Your task to perform on an android device: open wifi settings Image 0: 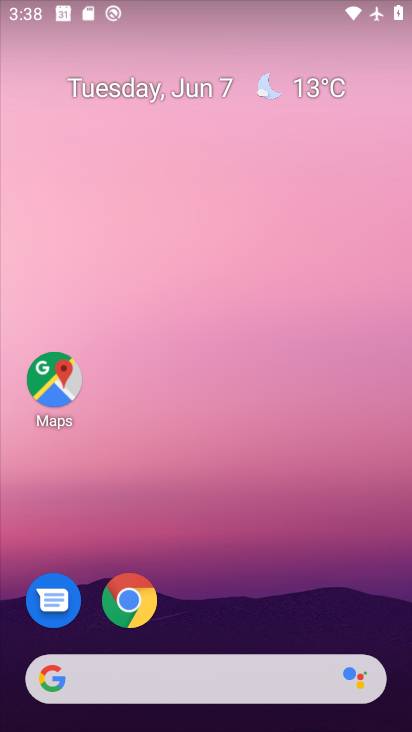
Step 0: drag from (319, 571) to (237, 225)
Your task to perform on an android device: open wifi settings Image 1: 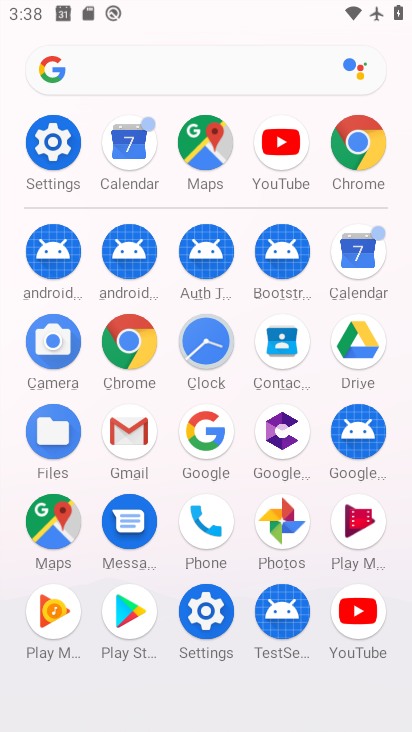
Step 1: click (63, 149)
Your task to perform on an android device: open wifi settings Image 2: 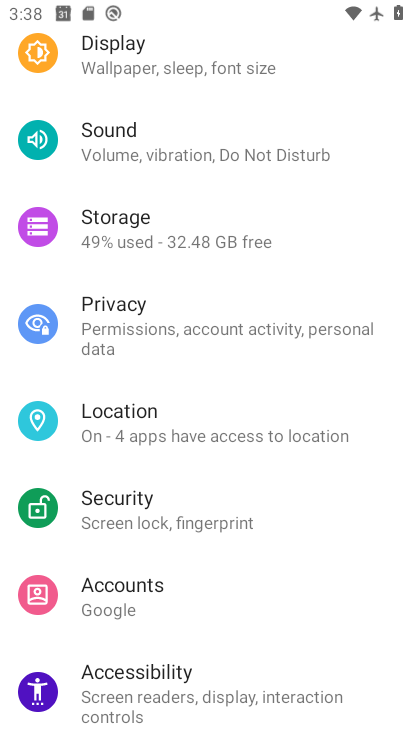
Step 2: drag from (244, 106) to (240, 570)
Your task to perform on an android device: open wifi settings Image 3: 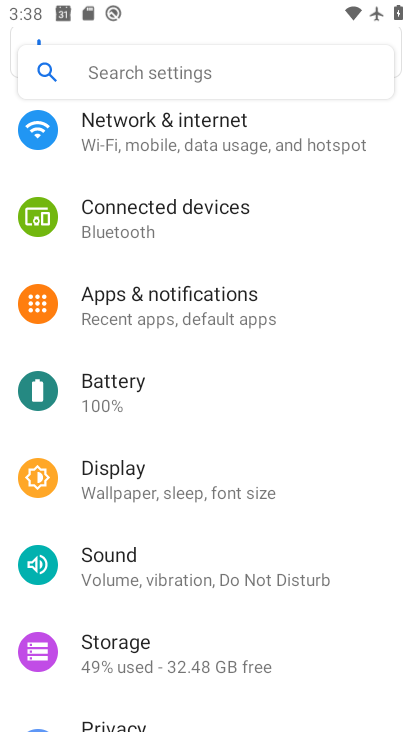
Step 3: click (162, 147)
Your task to perform on an android device: open wifi settings Image 4: 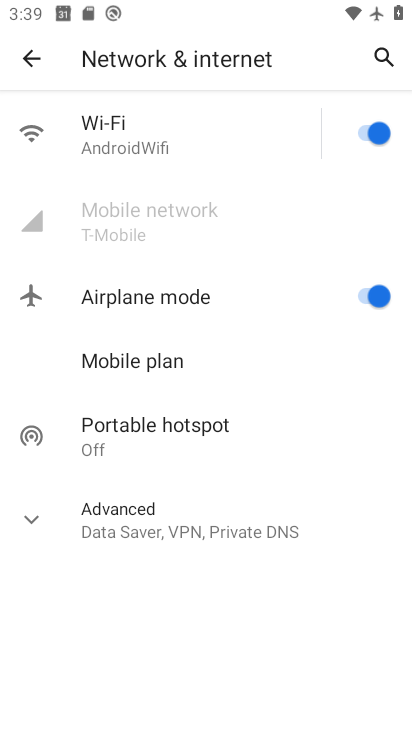
Step 4: click (163, 146)
Your task to perform on an android device: open wifi settings Image 5: 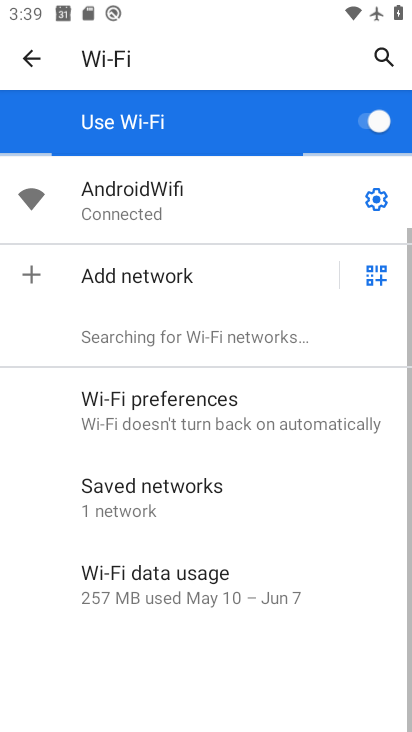
Step 5: click (376, 197)
Your task to perform on an android device: open wifi settings Image 6: 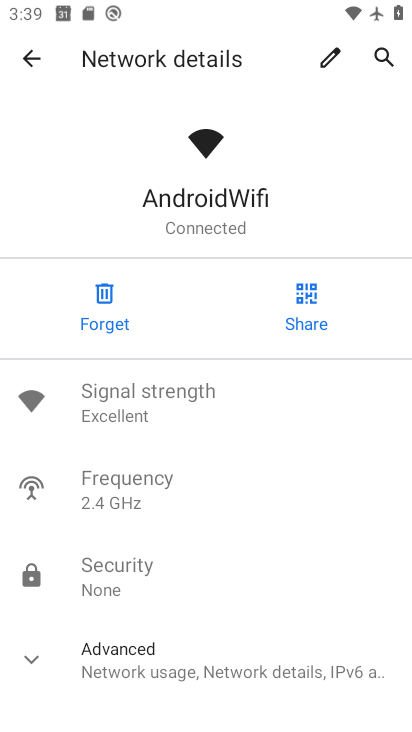
Step 6: task complete